Your task to perform on an android device: open the mobile data screen to see how much data has been used Image 0: 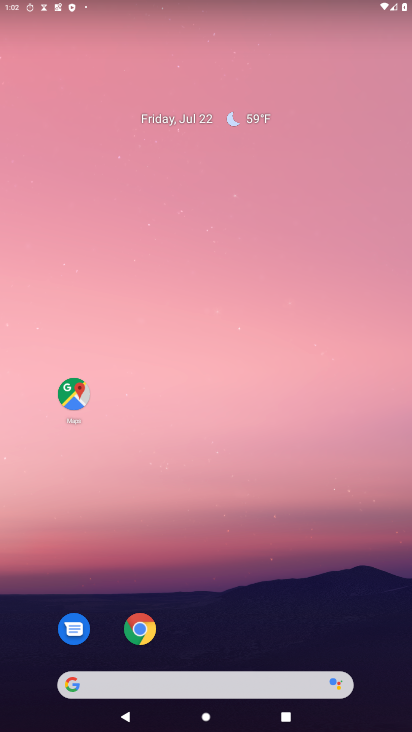
Step 0: drag from (175, 677) to (179, 137)
Your task to perform on an android device: open the mobile data screen to see how much data has been used Image 1: 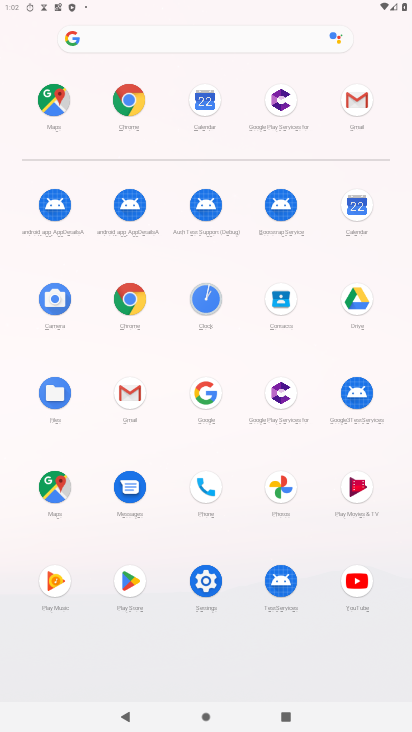
Step 1: click (212, 584)
Your task to perform on an android device: open the mobile data screen to see how much data has been used Image 2: 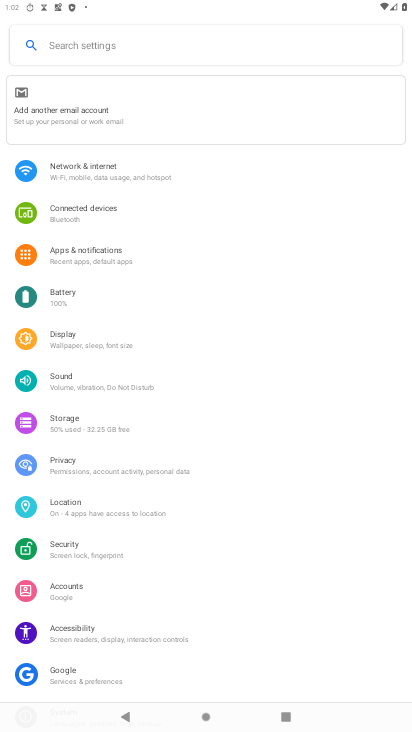
Step 2: click (89, 167)
Your task to perform on an android device: open the mobile data screen to see how much data has been used Image 3: 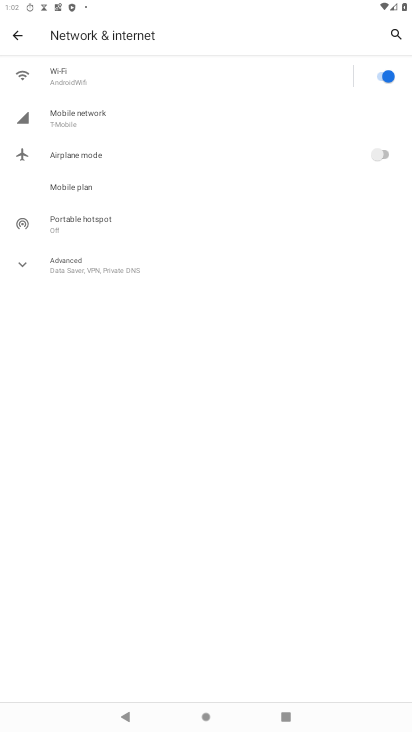
Step 3: click (78, 109)
Your task to perform on an android device: open the mobile data screen to see how much data has been used Image 4: 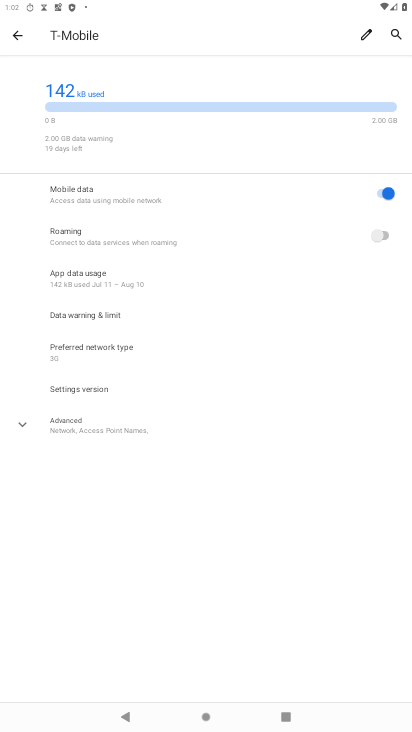
Step 4: task complete